Your task to perform on an android device: set the stopwatch Image 0: 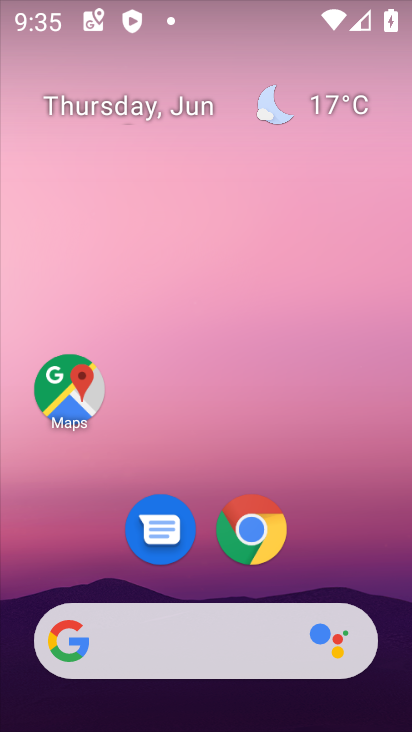
Step 0: drag from (399, 602) to (283, 96)
Your task to perform on an android device: set the stopwatch Image 1: 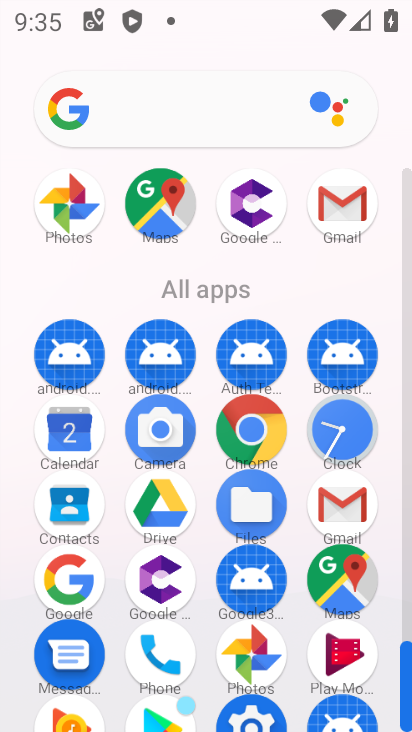
Step 1: click (343, 429)
Your task to perform on an android device: set the stopwatch Image 2: 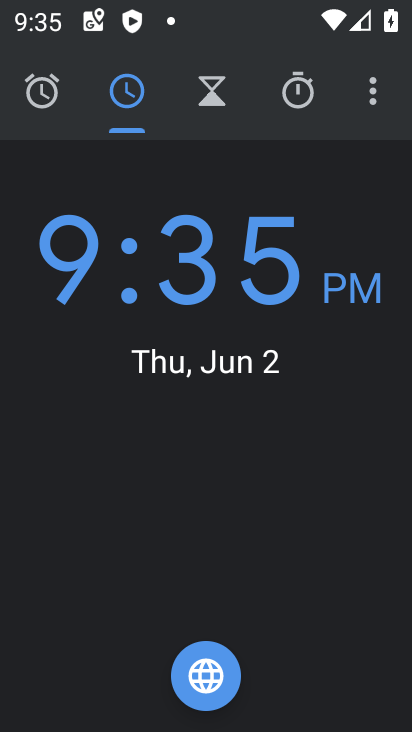
Step 2: click (301, 96)
Your task to perform on an android device: set the stopwatch Image 3: 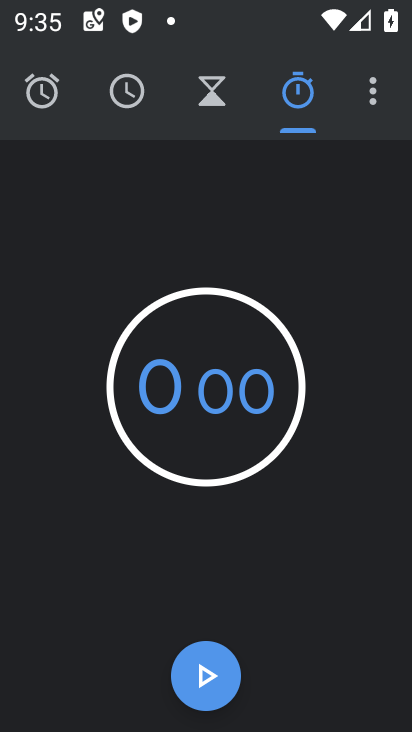
Step 3: task complete